Your task to perform on an android device: Open the Play Movies app and select the watchlist tab. Image 0: 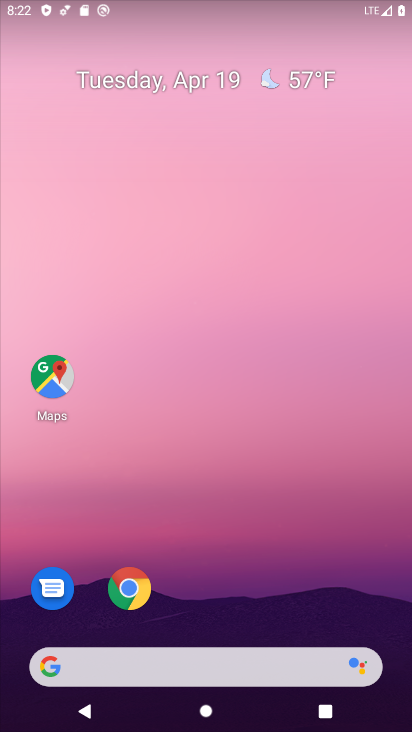
Step 0: drag from (278, 604) to (231, 160)
Your task to perform on an android device: Open the Play Movies app and select the watchlist tab. Image 1: 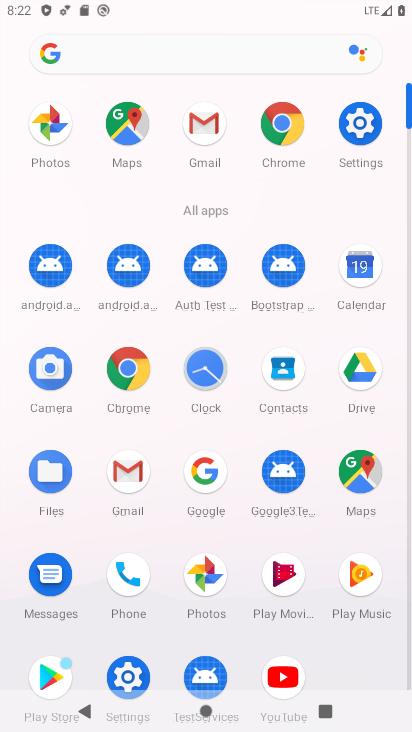
Step 1: click (267, 573)
Your task to perform on an android device: Open the Play Movies app and select the watchlist tab. Image 2: 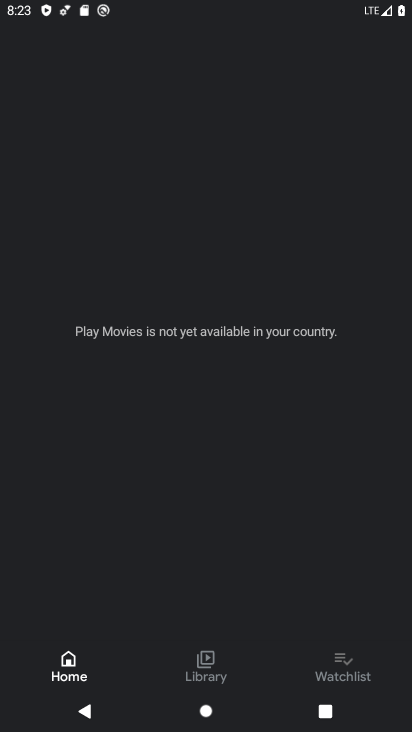
Step 2: click (330, 664)
Your task to perform on an android device: Open the Play Movies app and select the watchlist tab. Image 3: 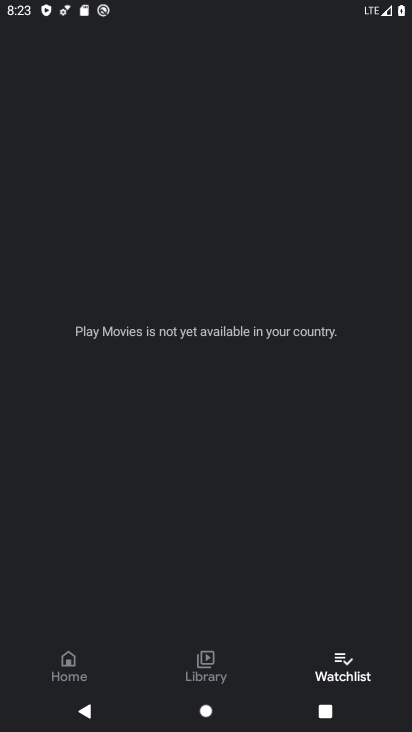
Step 3: task complete